Your task to perform on an android device: add a label to a message in the gmail app Image 0: 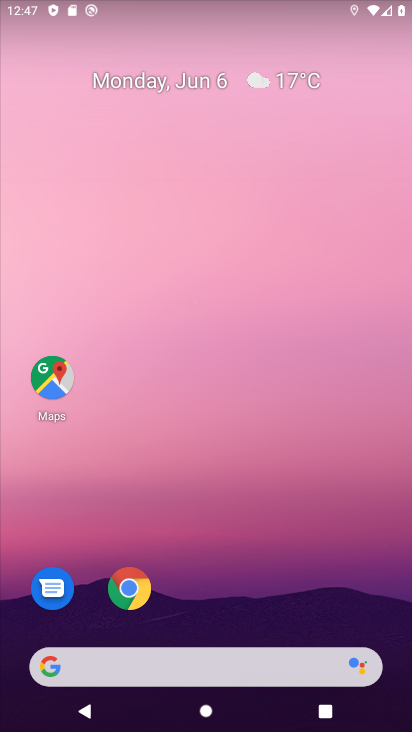
Step 0: drag from (138, 707) to (189, 117)
Your task to perform on an android device: add a label to a message in the gmail app Image 1: 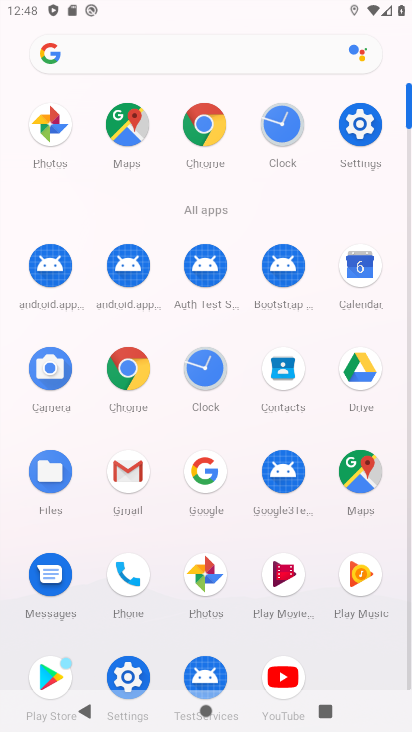
Step 1: click (132, 482)
Your task to perform on an android device: add a label to a message in the gmail app Image 2: 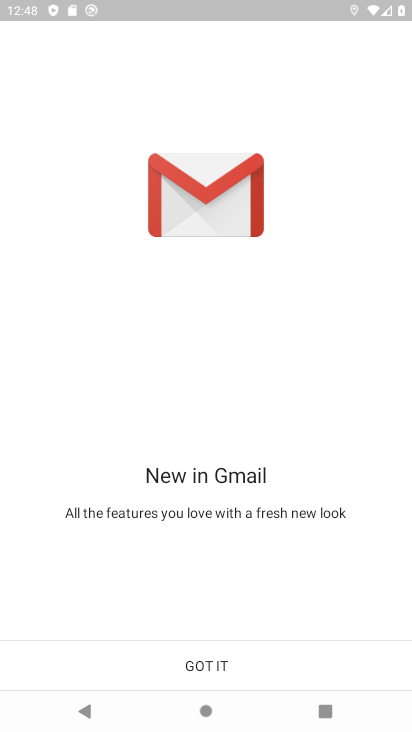
Step 2: click (195, 659)
Your task to perform on an android device: add a label to a message in the gmail app Image 3: 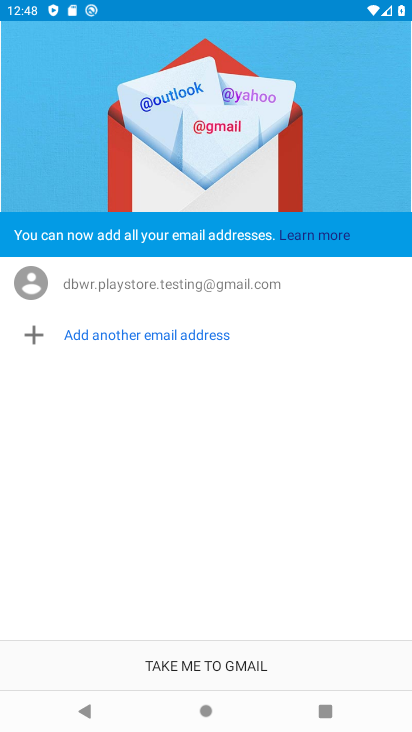
Step 3: click (183, 670)
Your task to perform on an android device: add a label to a message in the gmail app Image 4: 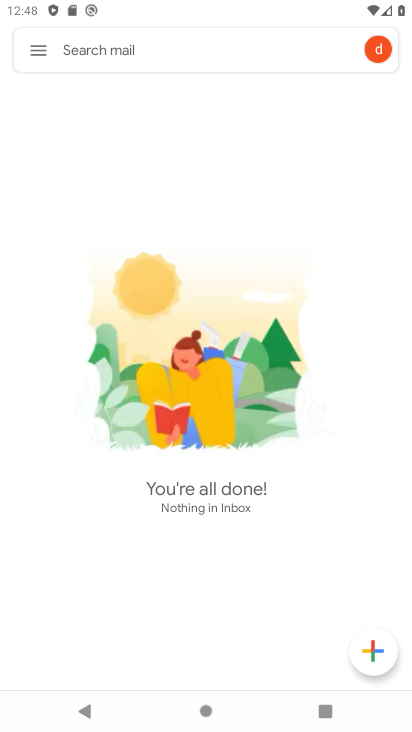
Step 4: click (38, 47)
Your task to perform on an android device: add a label to a message in the gmail app Image 5: 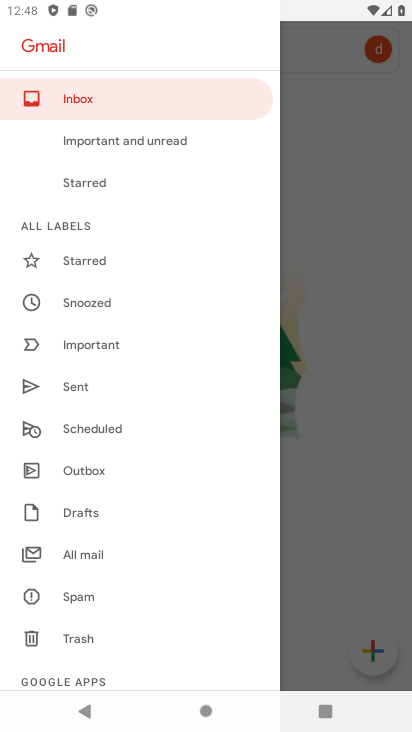
Step 5: click (88, 563)
Your task to perform on an android device: add a label to a message in the gmail app Image 6: 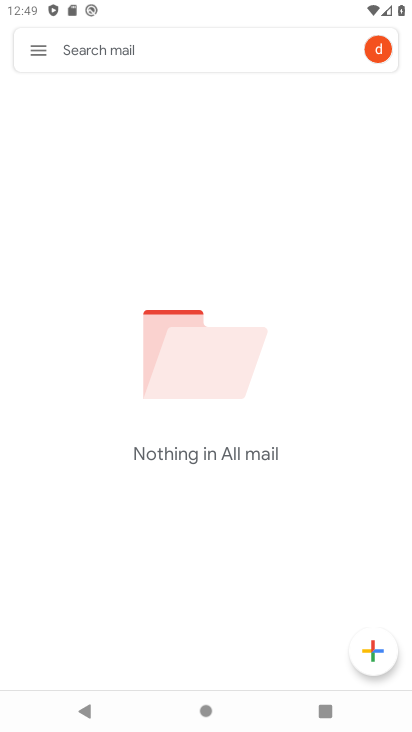
Step 6: task complete